Your task to perform on an android device: Is it going to rain tomorrow? Image 0: 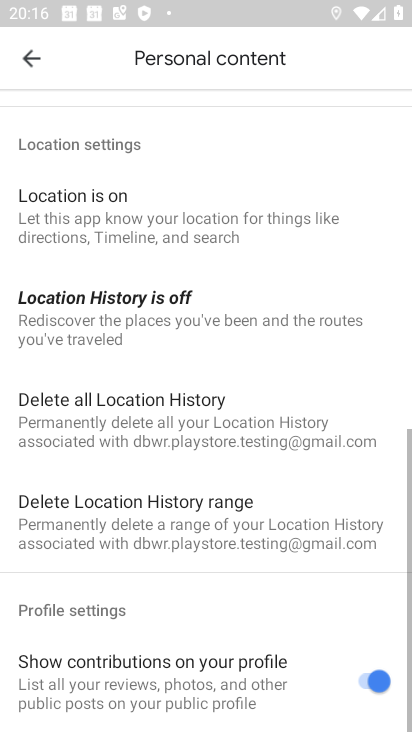
Step 0: drag from (303, 597) to (275, 162)
Your task to perform on an android device: Is it going to rain tomorrow? Image 1: 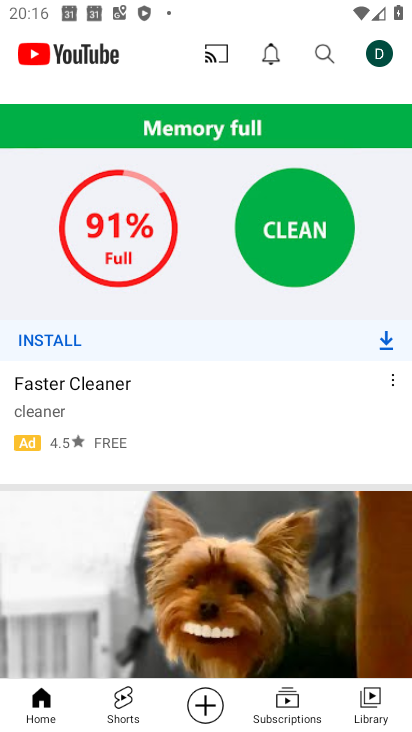
Step 1: press home button
Your task to perform on an android device: Is it going to rain tomorrow? Image 2: 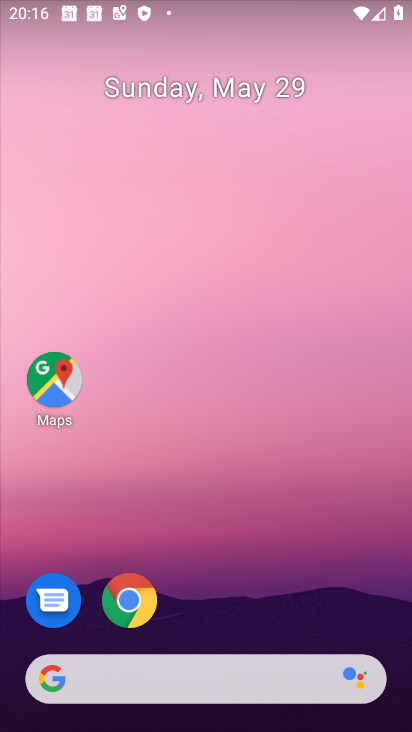
Step 2: drag from (338, 588) to (298, 206)
Your task to perform on an android device: Is it going to rain tomorrow? Image 3: 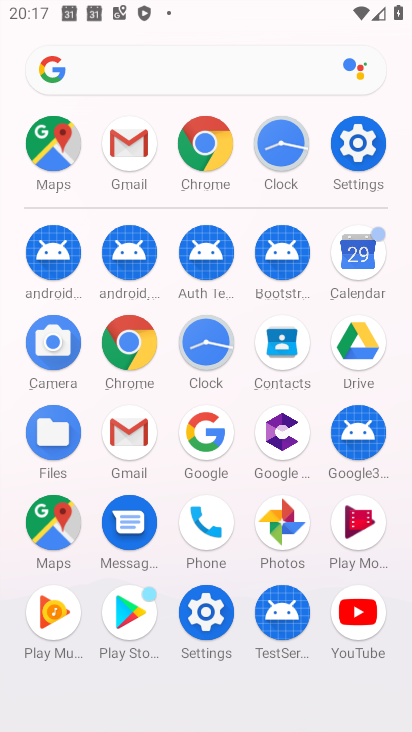
Step 3: click (126, 348)
Your task to perform on an android device: Is it going to rain tomorrow? Image 4: 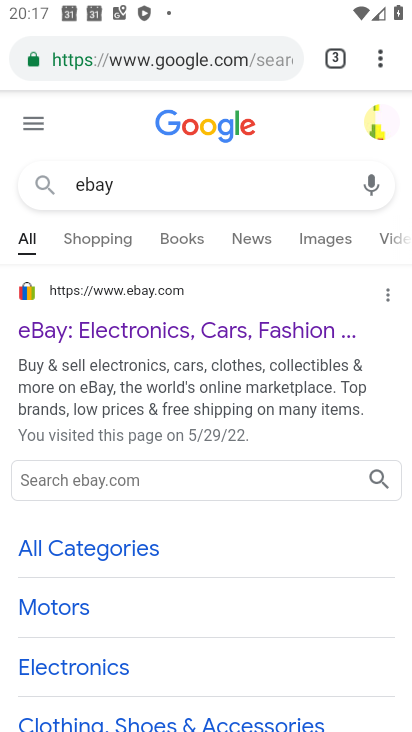
Step 4: click (162, 42)
Your task to perform on an android device: Is it going to rain tomorrow? Image 5: 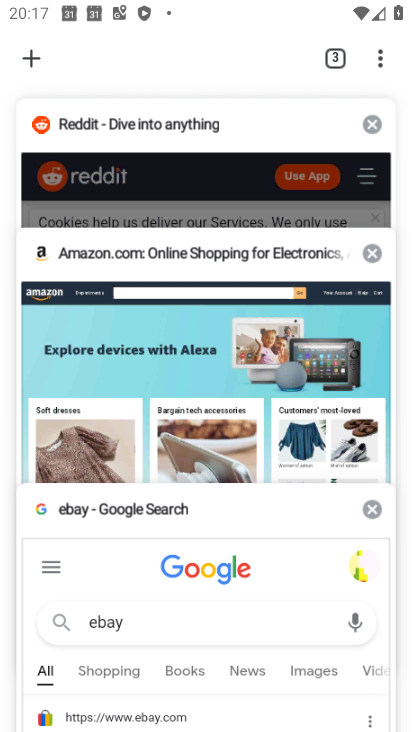
Step 5: click (24, 54)
Your task to perform on an android device: Is it going to rain tomorrow? Image 6: 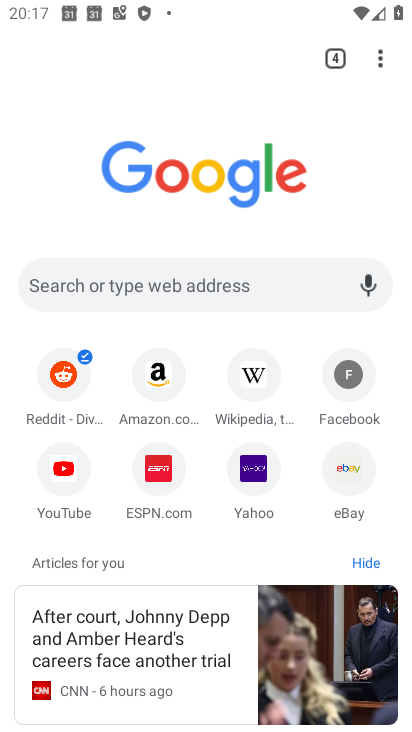
Step 6: click (241, 276)
Your task to perform on an android device: Is it going to rain tomorrow? Image 7: 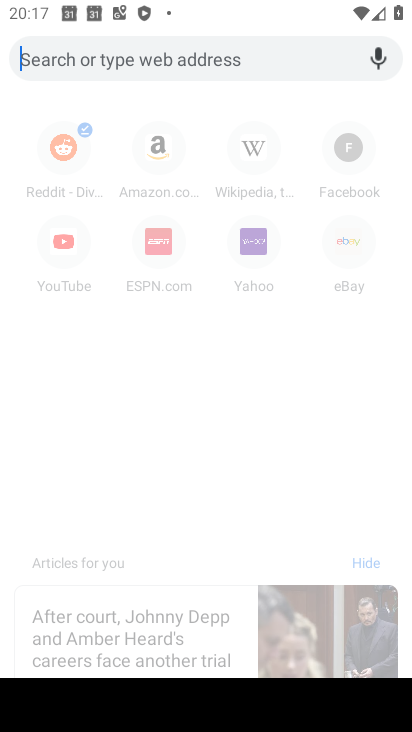
Step 7: type "is it going to rain tomorrow"
Your task to perform on an android device: Is it going to rain tomorrow? Image 8: 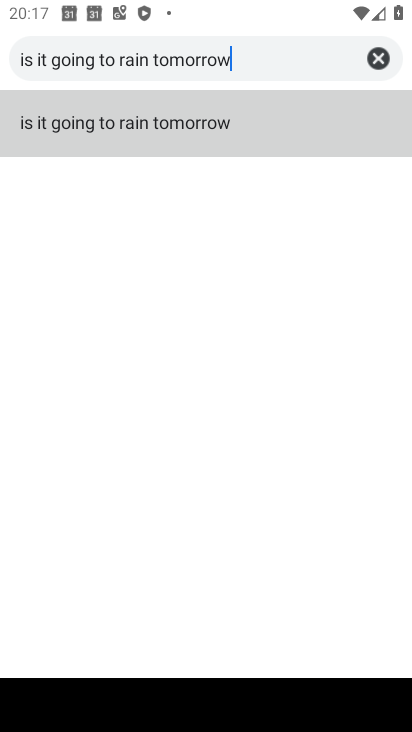
Step 8: click (151, 133)
Your task to perform on an android device: Is it going to rain tomorrow? Image 9: 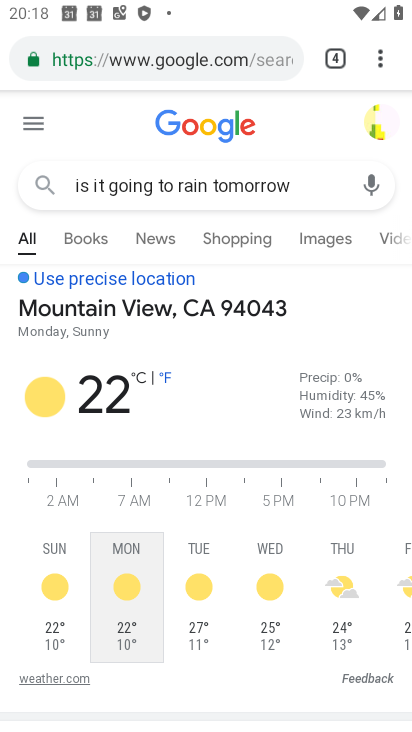
Step 9: task complete